Your task to perform on an android device: move a message to another label in the gmail app Image 0: 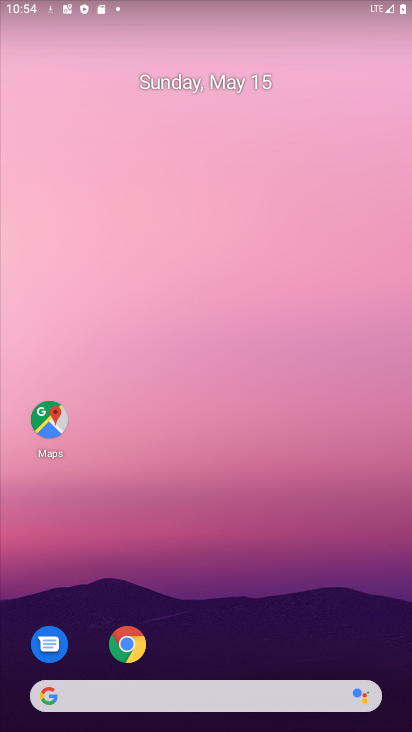
Step 0: drag from (294, 664) to (332, 152)
Your task to perform on an android device: move a message to another label in the gmail app Image 1: 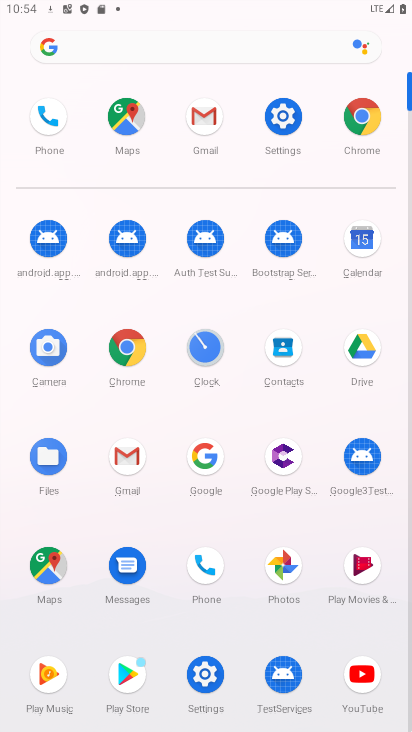
Step 1: click (116, 467)
Your task to perform on an android device: move a message to another label in the gmail app Image 2: 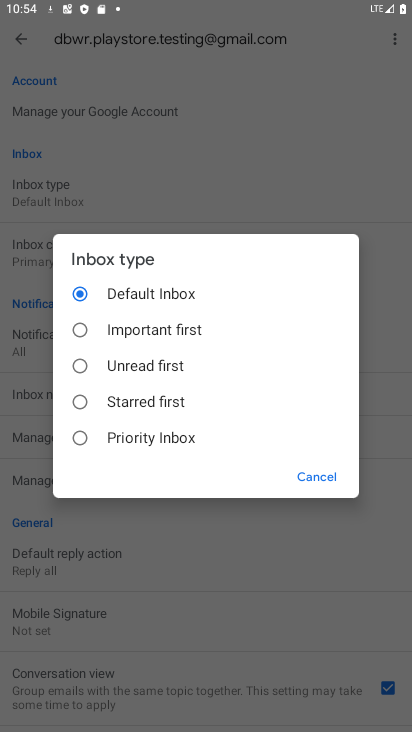
Step 2: click (271, 599)
Your task to perform on an android device: move a message to another label in the gmail app Image 3: 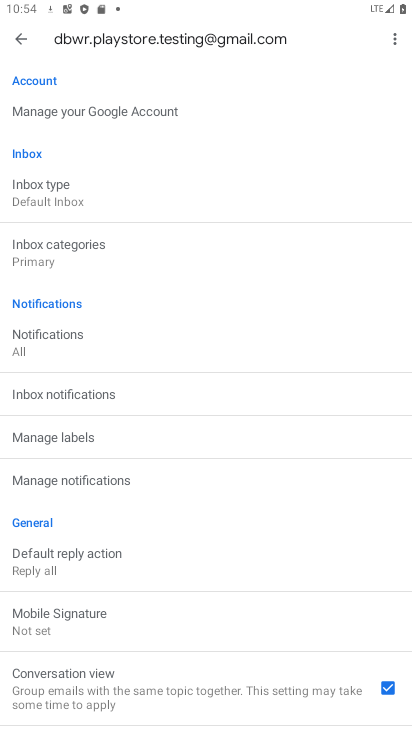
Step 3: click (96, 431)
Your task to perform on an android device: move a message to another label in the gmail app Image 4: 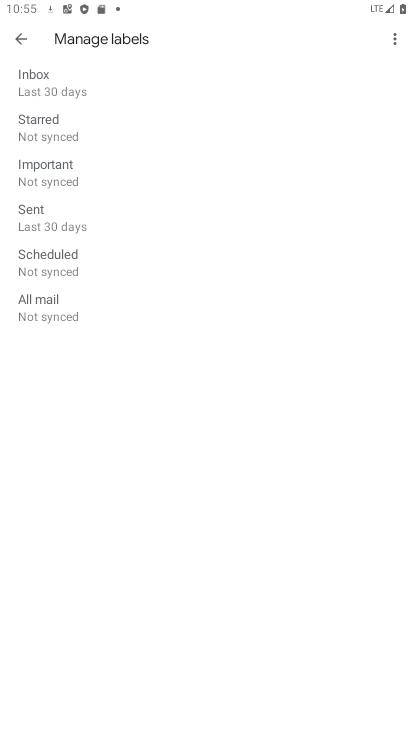
Step 4: click (99, 166)
Your task to perform on an android device: move a message to another label in the gmail app Image 5: 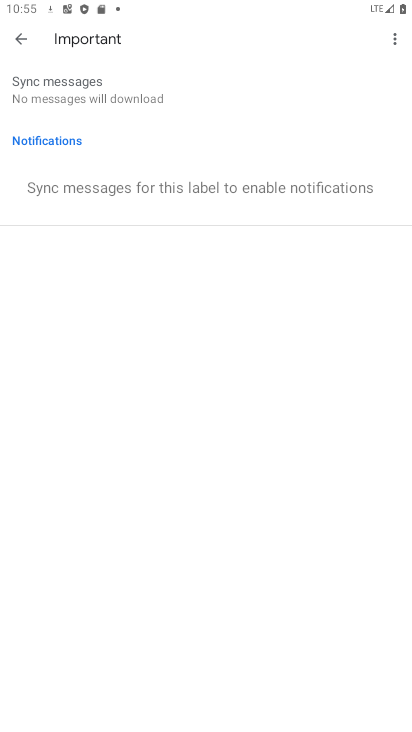
Step 5: task complete